Your task to perform on an android device: Open calendar and show me the fourth week of next month Image 0: 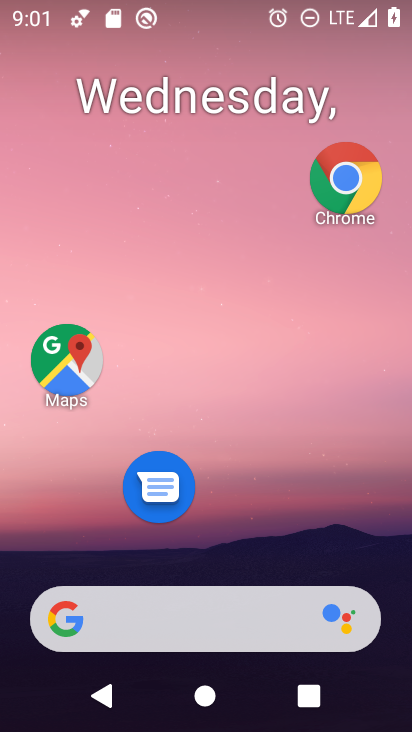
Step 0: drag from (282, 491) to (282, 17)
Your task to perform on an android device: Open calendar and show me the fourth week of next month Image 1: 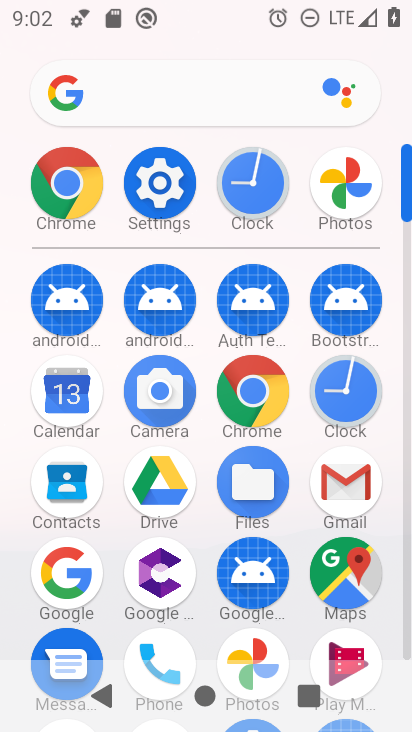
Step 1: drag from (202, 528) to (219, 276)
Your task to perform on an android device: Open calendar and show me the fourth week of next month Image 2: 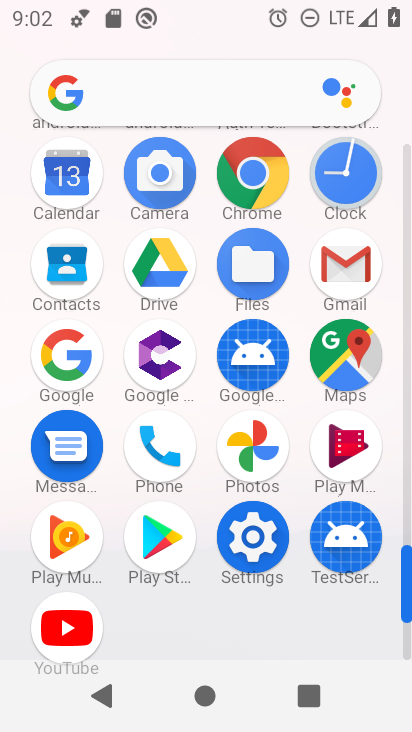
Step 2: click (60, 185)
Your task to perform on an android device: Open calendar and show me the fourth week of next month Image 3: 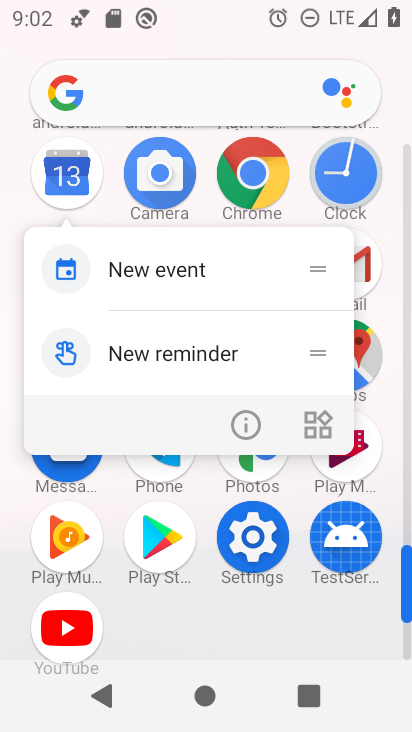
Step 3: click (307, 634)
Your task to perform on an android device: Open calendar and show me the fourth week of next month Image 4: 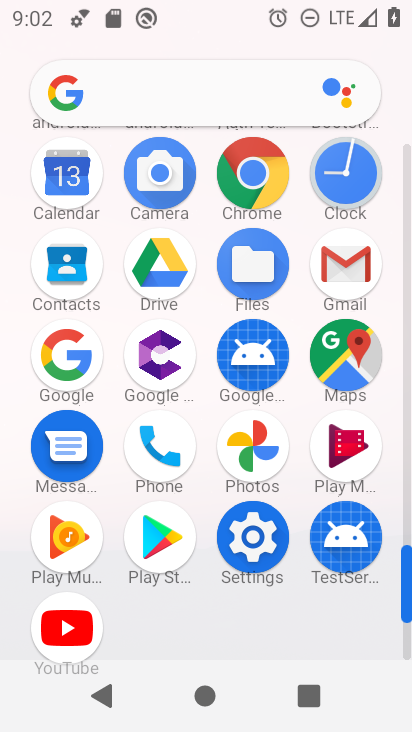
Step 4: click (76, 195)
Your task to perform on an android device: Open calendar and show me the fourth week of next month Image 5: 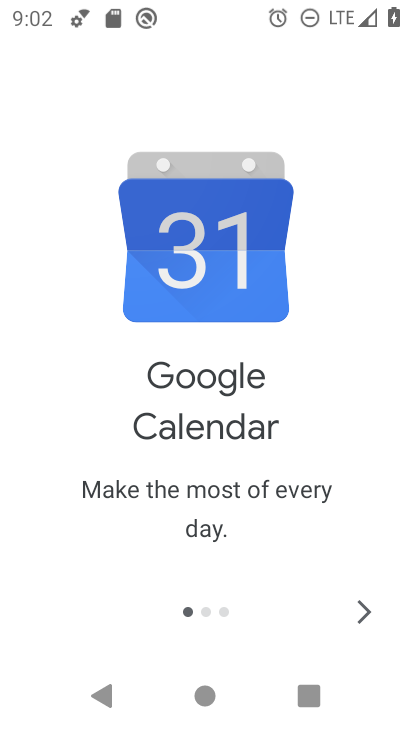
Step 5: click (368, 606)
Your task to perform on an android device: Open calendar and show me the fourth week of next month Image 6: 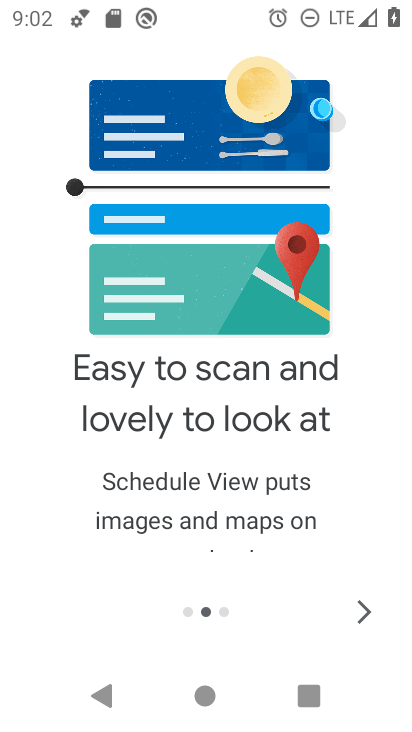
Step 6: click (361, 610)
Your task to perform on an android device: Open calendar and show me the fourth week of next month Image 7: 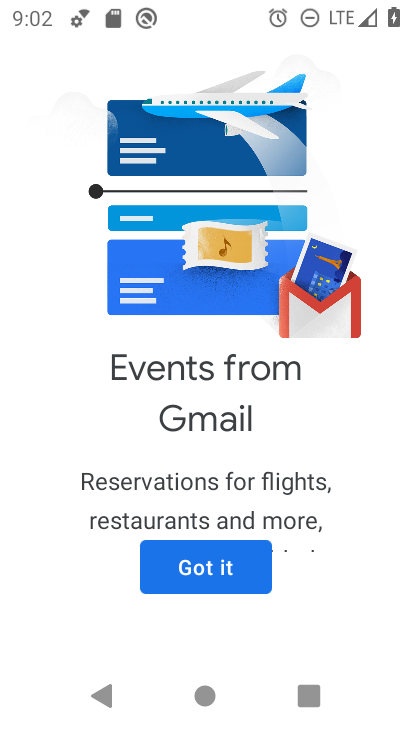
Step 7: click (235, 569)
Your task to perform on an android device: Open calendar and show me the fourth week of next month Image 8: 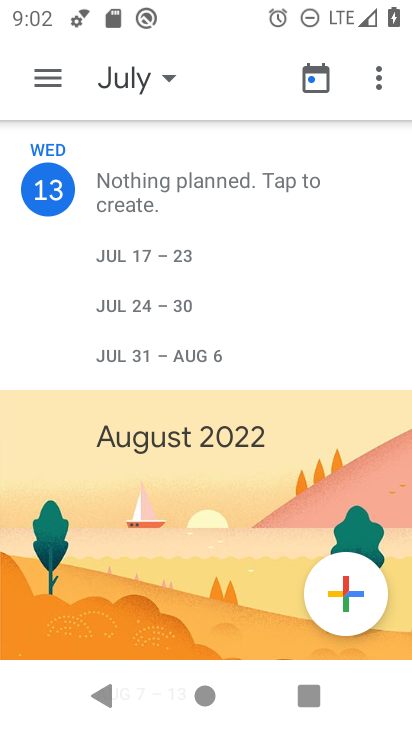
Step 8: click (152, 84)
Your task to perform on an android device: Open calendar and show me the fourth week of next month Image 9: 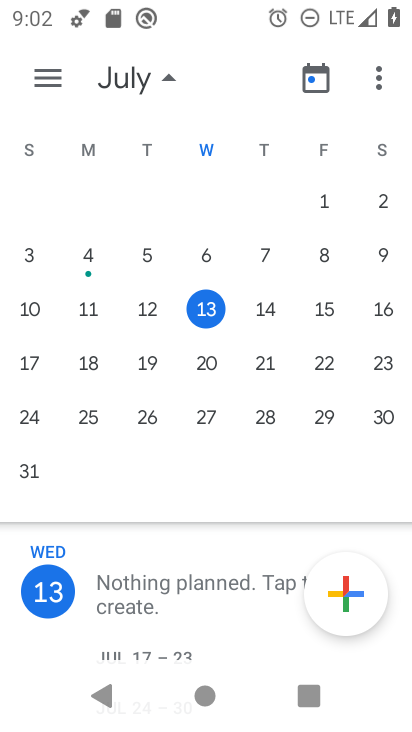
Step 9: drag from (360, 395) to (2, 390)
Your task to perform on an android device: Open calendar and show me the fourth week of next month Image 10: 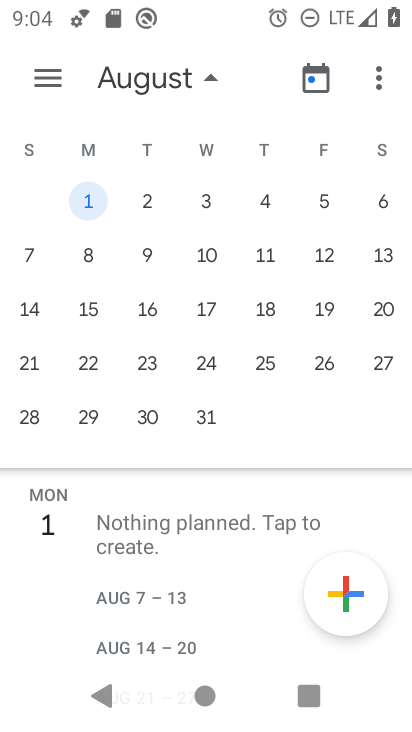
Step 10: click (29, 377)
Your task to perform on an android device: Open calendar and show me the fourth week of next month Image 11: 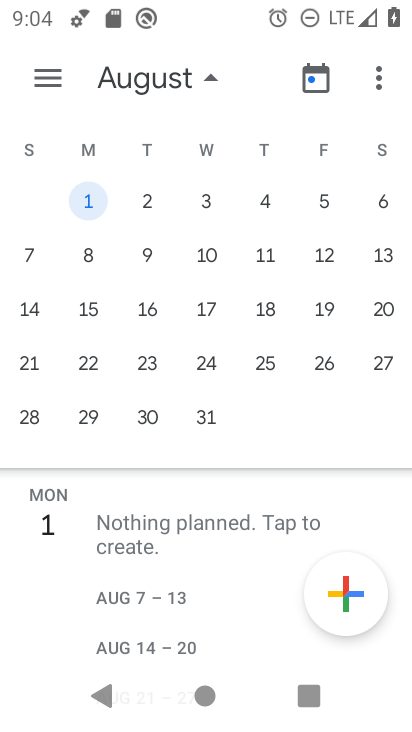
Step 11: click (29, 382)
Your task to perform on an android device: Open calendar and show me the fourth week of next month Image 12: 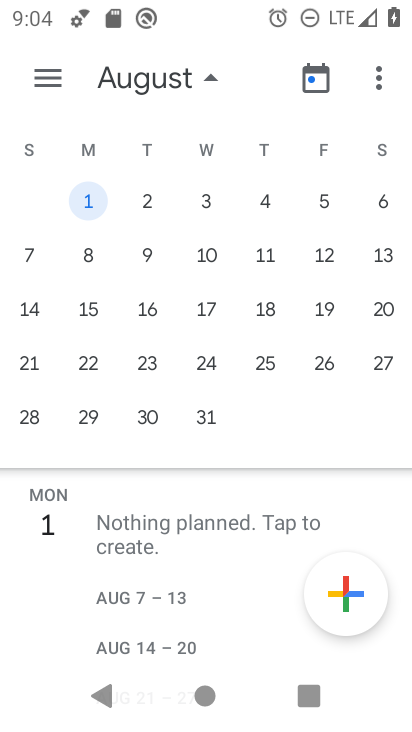
Step 12: click (39, 370)
Your task to perform on an android device: Open calendar and show me the fourth week of next month Image 13: 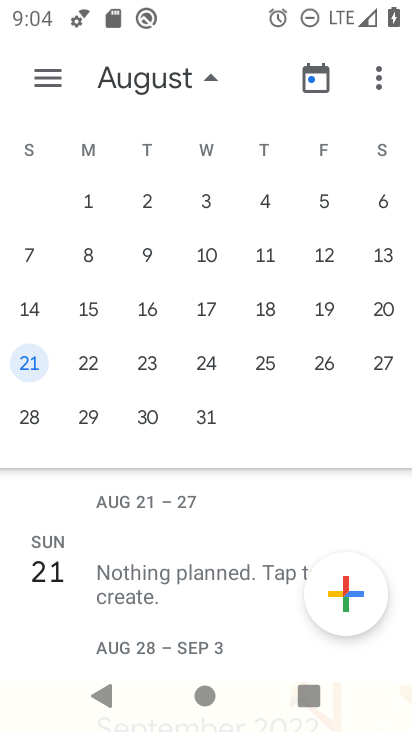
Step 13: task complete